Your task to perform on an android device: Open eBay Image 0: 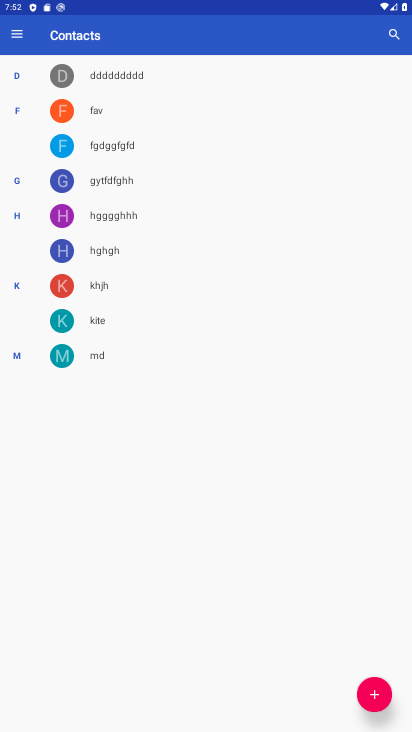
Step 0: press home button
Your task to perform on an android device: Open eBay Image 1: 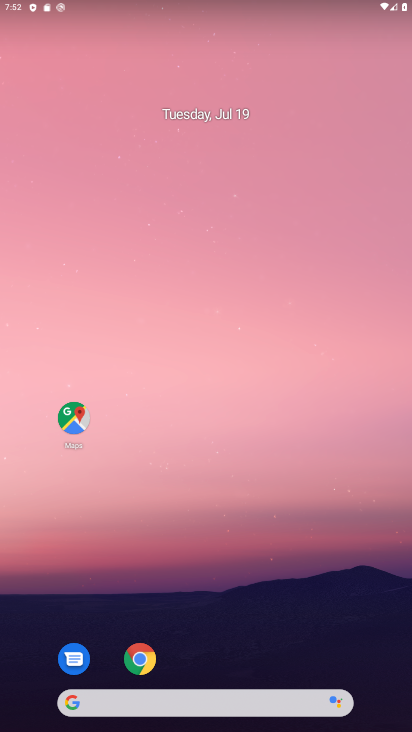
Step 1: drag from (245, 618) to (267, 14)
Your task to perform on an android device: Open eBay Image 2: 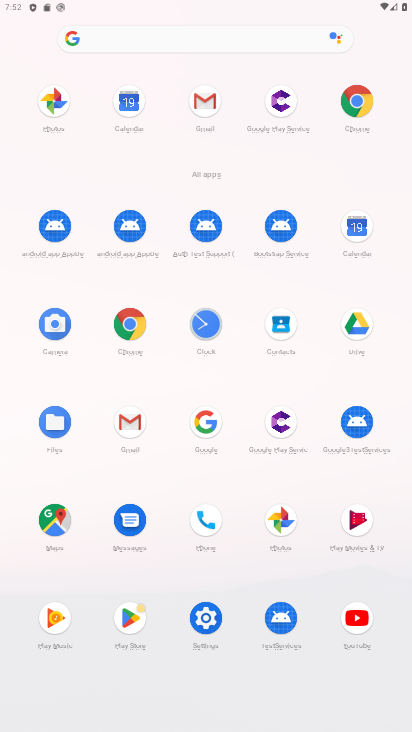
Step 2: click (125, 326)
Your task to perform on an android device: Open eBay Image 3: 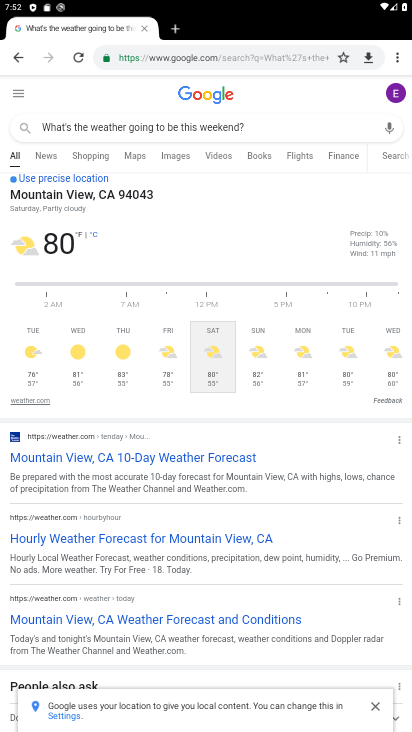
Step 3: click (220, 58)
Your task to perform on an android device: Open eBay Image 4: 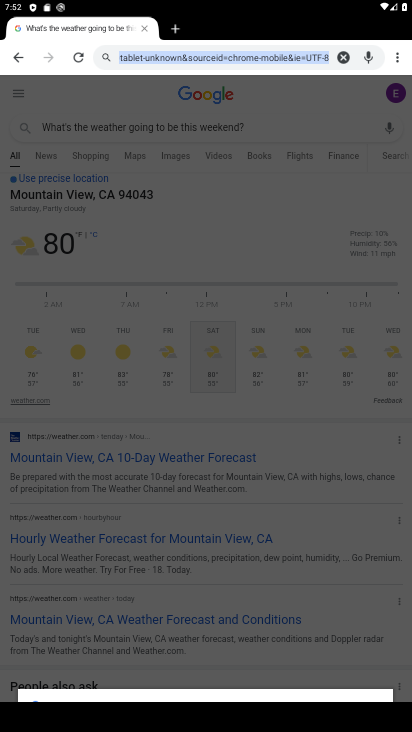
Step 4: click (335, 57)
Your task to perform on an android device: Open eBay Image 5: 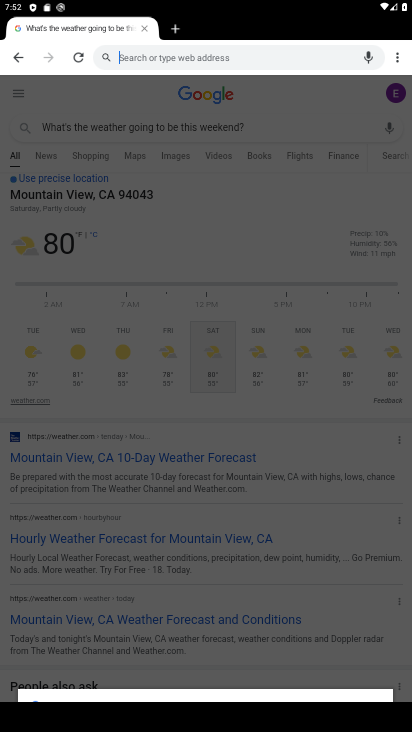
Step 5: type "eBay"
Your task to perform on an android device: Open eBay Image 6: 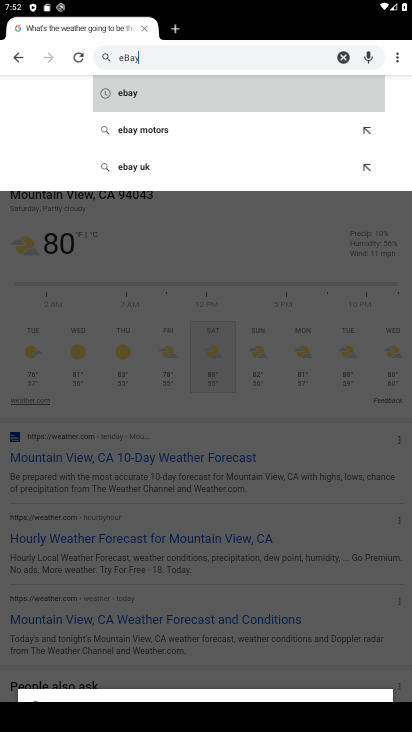
Step 6: click (117, 93)
Your task to perform on an android device: Open eBay Image 7: 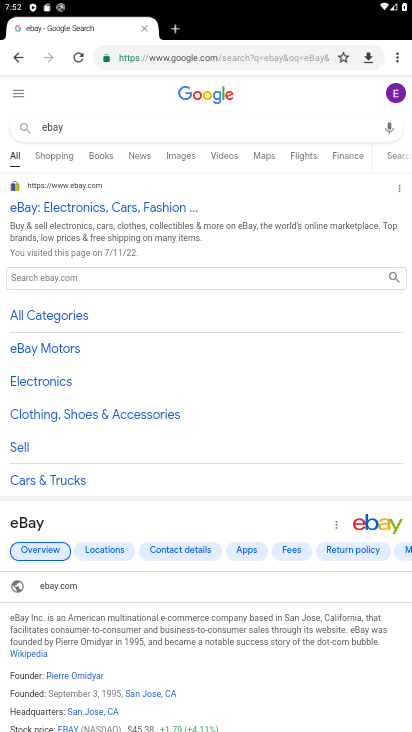
Step 7: task complete